Your task to perform on an android device: Open the phone app and click the voicemail tab. Image 0: 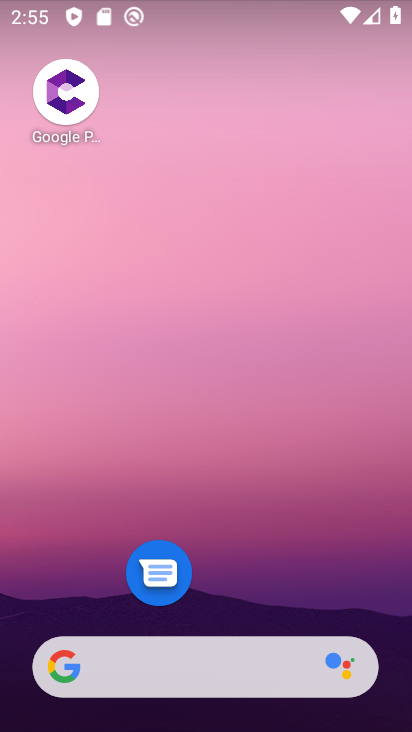
Step 0: drag from (240, 608) to (373, 87)
Your task to perform on an android device: Open the phone app and click the voicemail tab. Image 1: 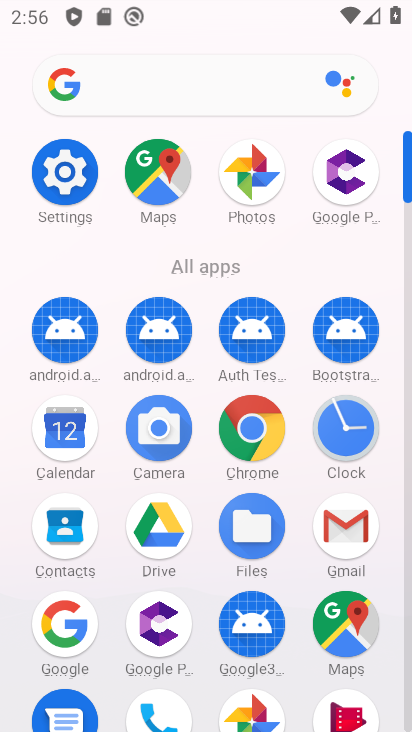
Step 1: click (147, 701)
Your task to perform on an android device: Open the phone app and click the voicemail tab. Image 2: 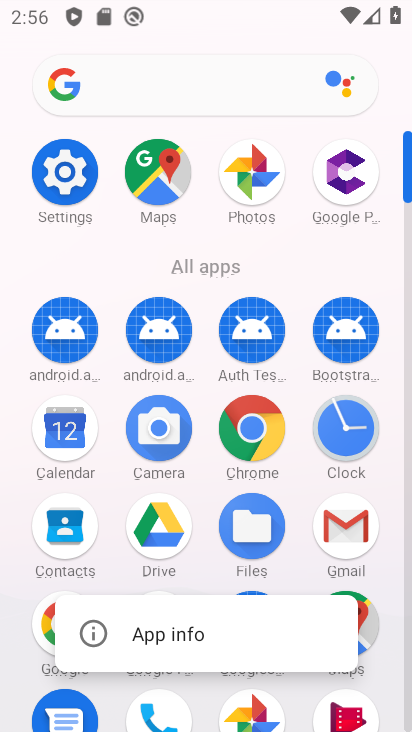
Step 2: click (147, 698)
Your task to perform on an android device: Open the phone app and click the voicemail tab. Image 3: 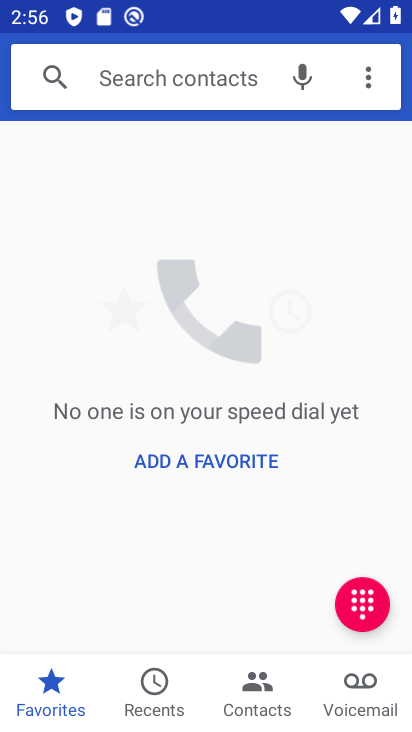
Step 3: click (341, 689)
Your task to perform on an android device: Open the phone app and click the voicemail tab. Image 4: 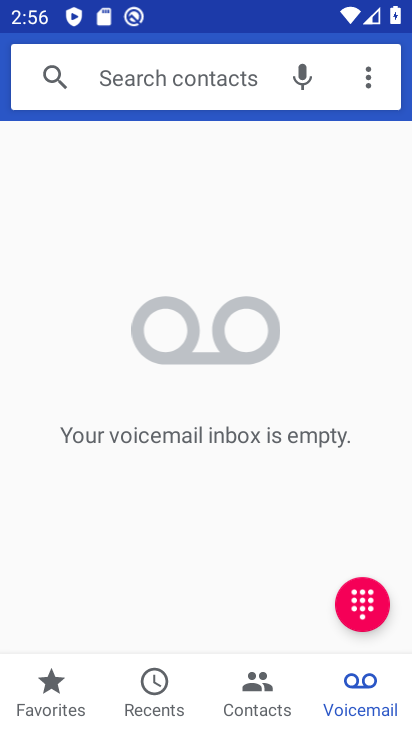
Step 4: task complete